Your task to perform on an android device: Open CNN.com Image 0: 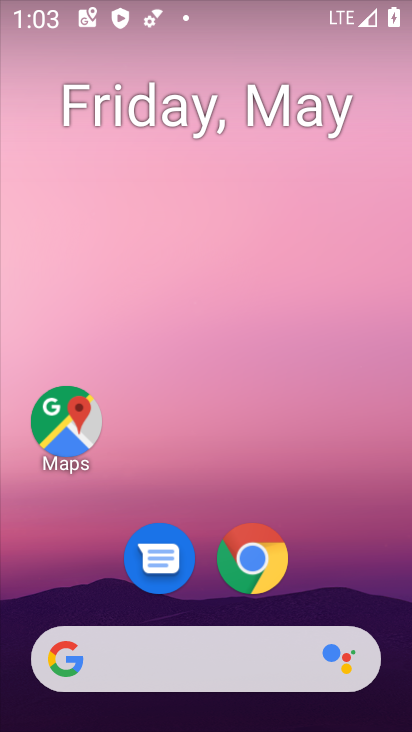
Step 0: click (272, 553)
Your task to perform on an android device: Open CNN.com Image 1: 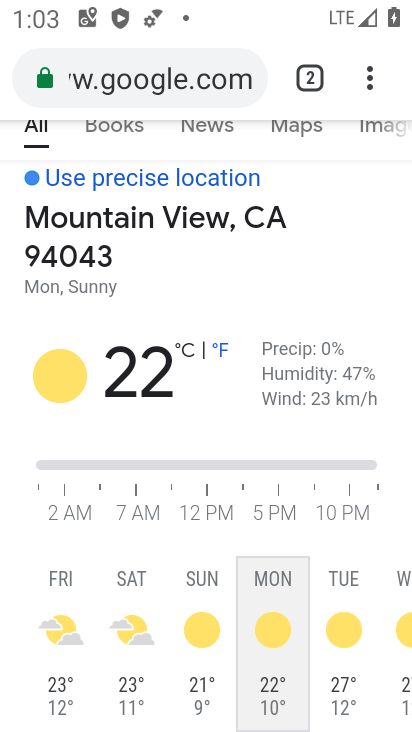
Step 1: click (152, 76)
Your task to perform on an android device: Open CNN.com Image 2: 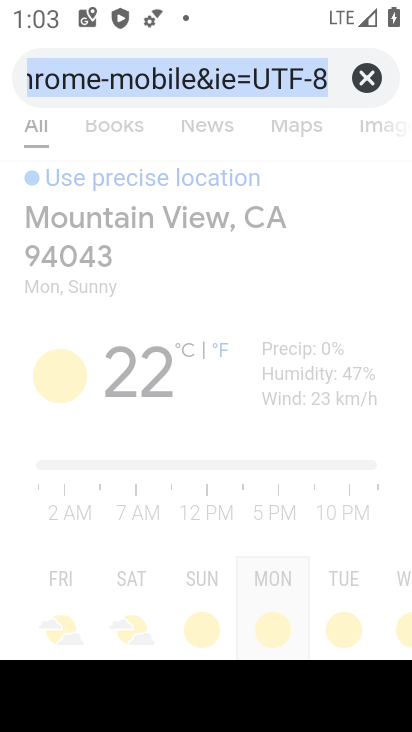
Step 2: type "cnn.com"
Your task to perform on an android device: Open CNN.com Image 3: 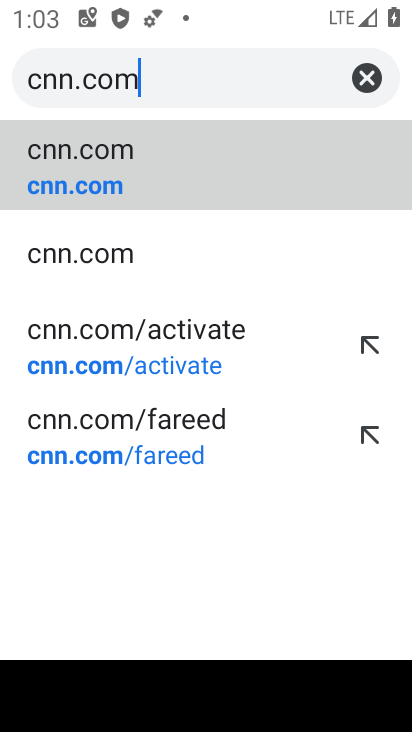
Step 3: click (65, 177)
Your task to perform on an android device: Open CNN.com Image 4: 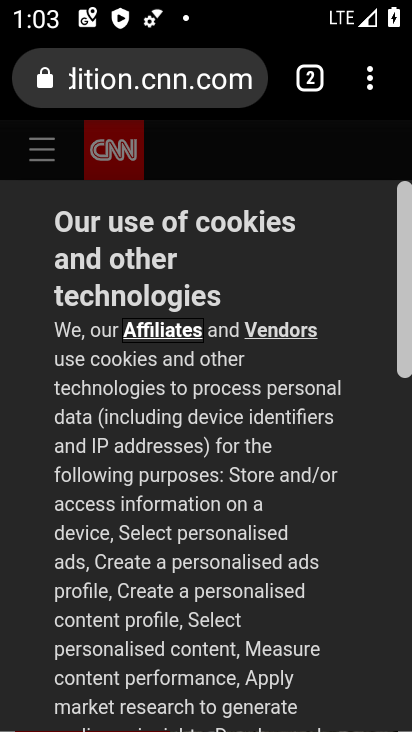
Step 4: task complete